Your task to perform on an android device: Open Youtube and go to the subscriptions tab Image 0: 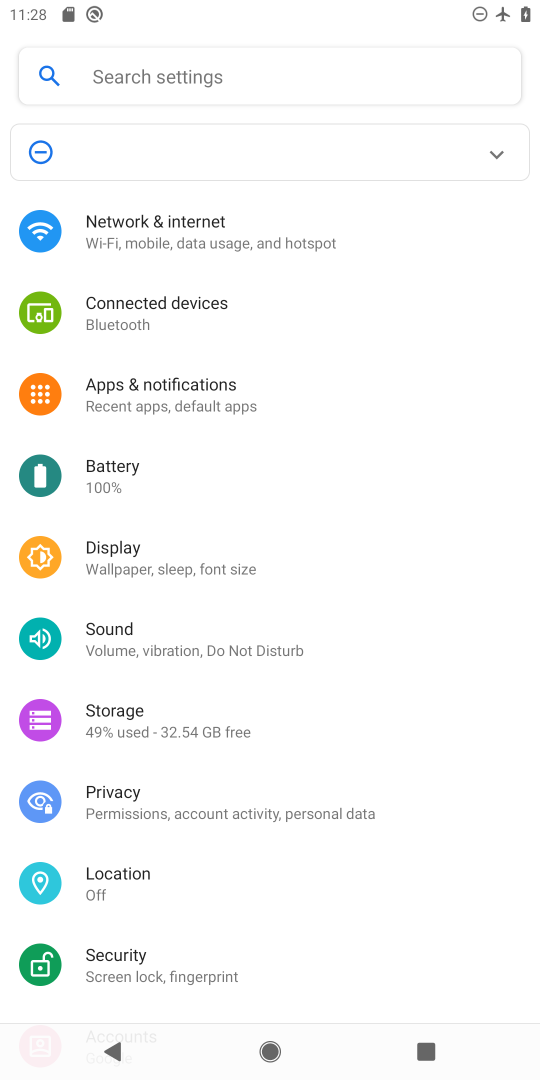
Step 0: press home button
Your task to perform on an android device: Open Youtube and go to the subscriptions tab Image 1: 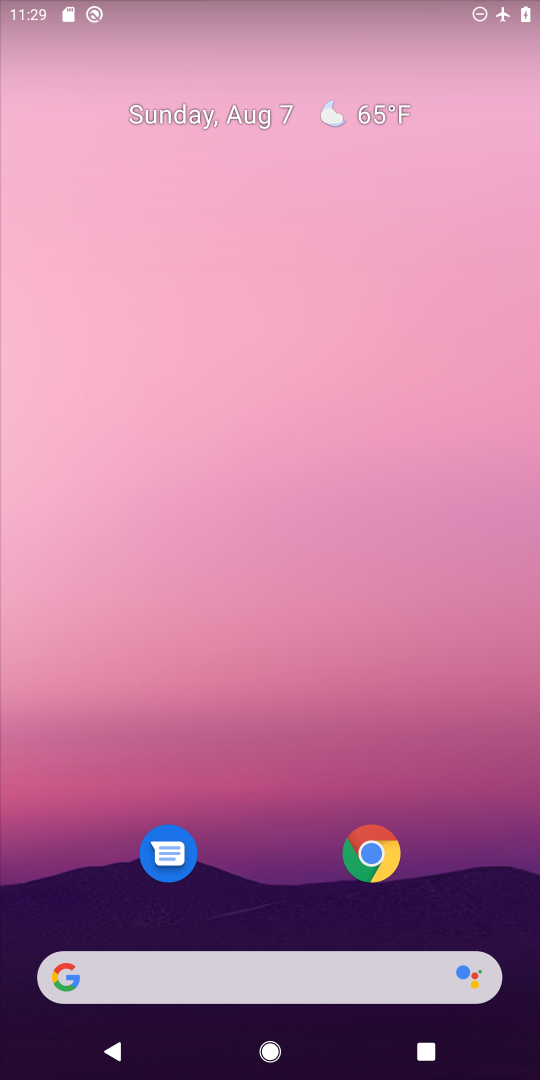
Step 1: drag from (245, 919) to (232, 38)
Your task to perform on an android device: Open Youtube and go to the subscriptions tab Image 2: 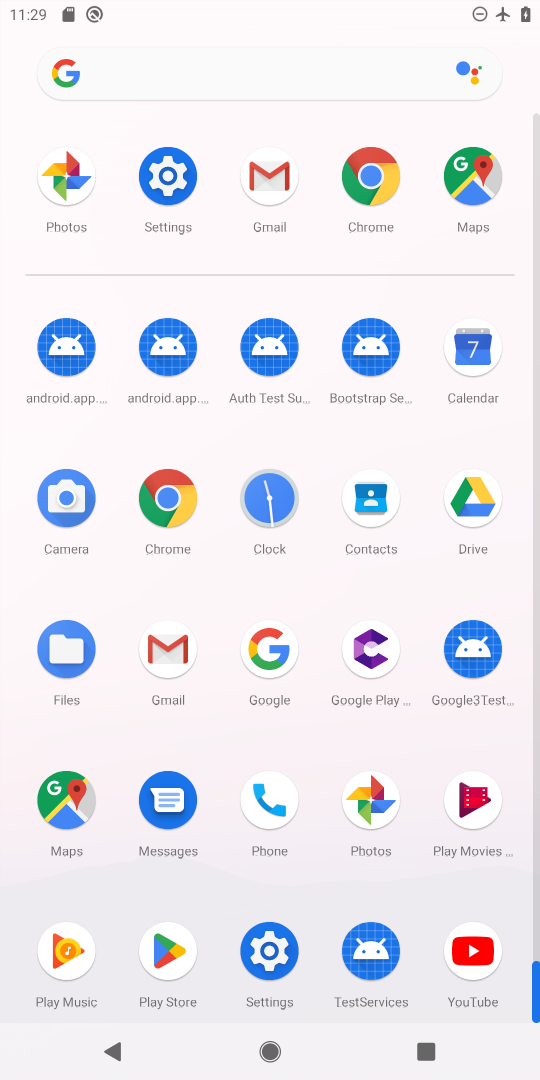
Step 2: click (465, 945)
Your task to perform on an android device: Open Youtube and go to the subscriptions tab Image 3: 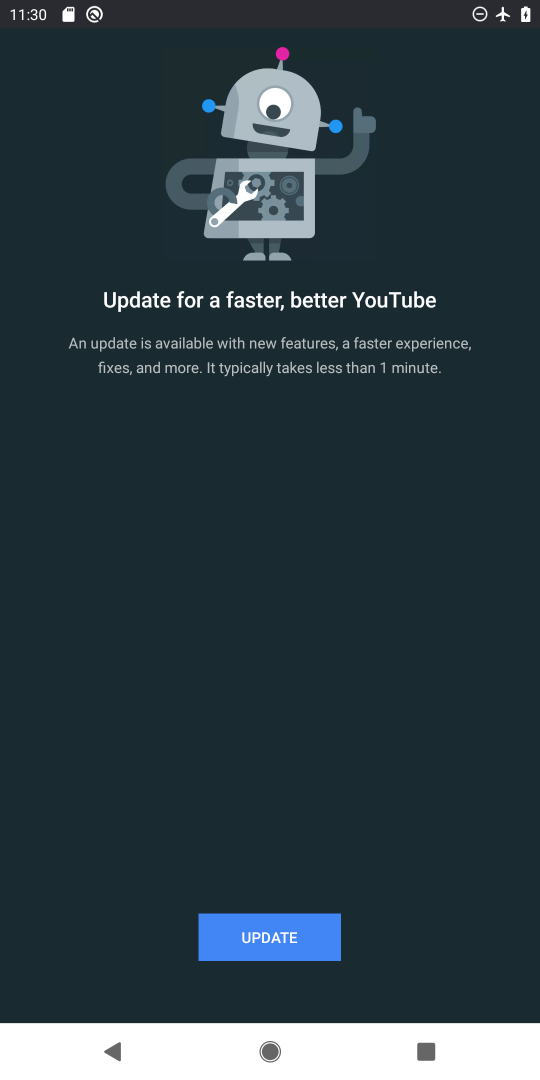
Step 3: task complete